Your task to perform on an android device: star an email in the gmail app Image 0: 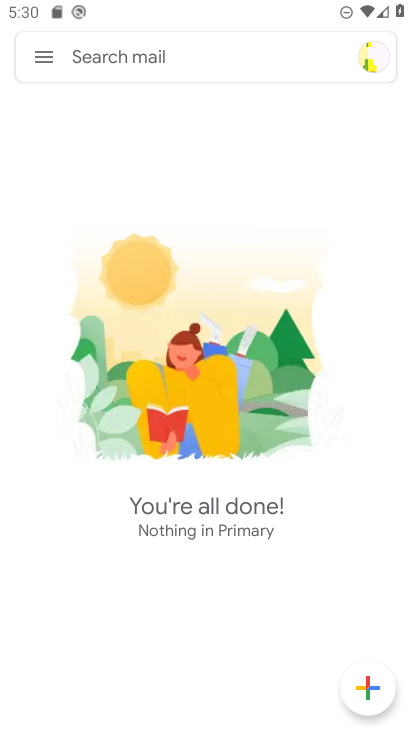
Step 0: press home button
Your task to perform on an android device: star an email in the gmail app Image 1: 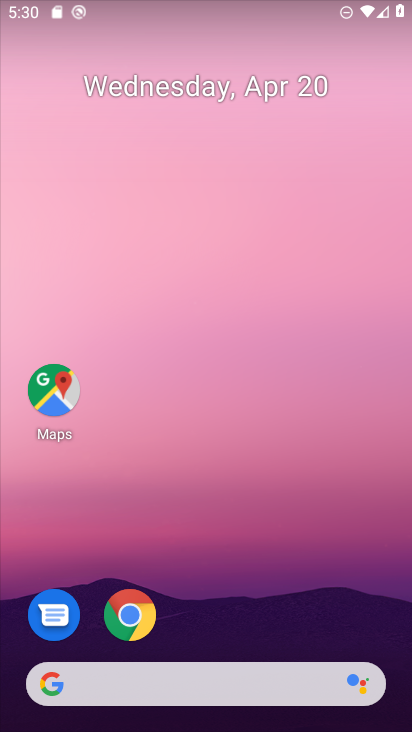
Step 1: drag from (259, 602) to (193, 40)
Your task to perform on an android device: star an email in the gmail app Image 2: 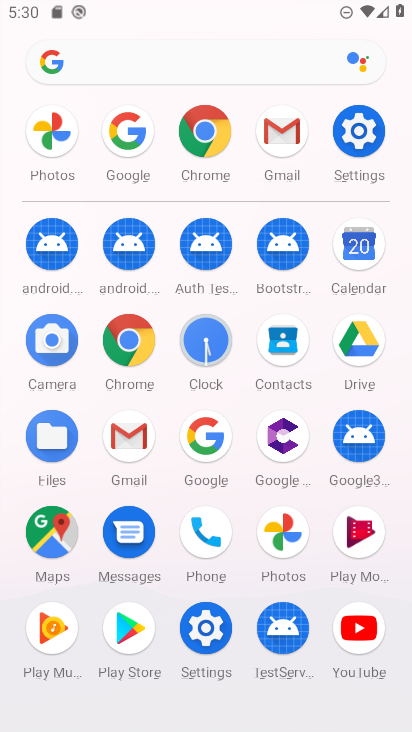
Step 2: click (276, 124)
Your task to perform on an android device: star an email in the gmail app Image 3: 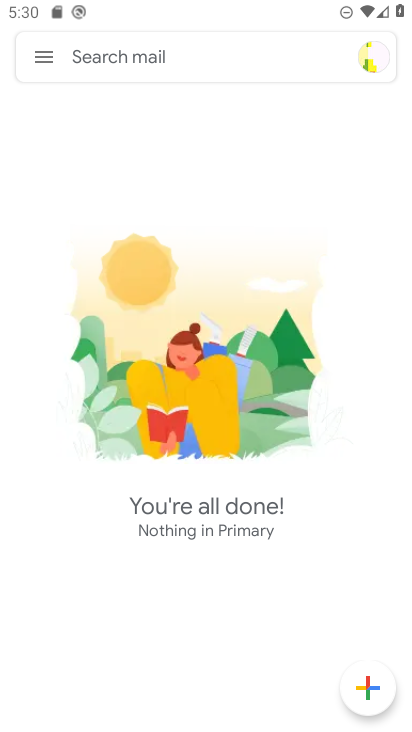
Step 3: click (42, 56)
Your task to perform on an android device: star an email in the gmail app Image 4: 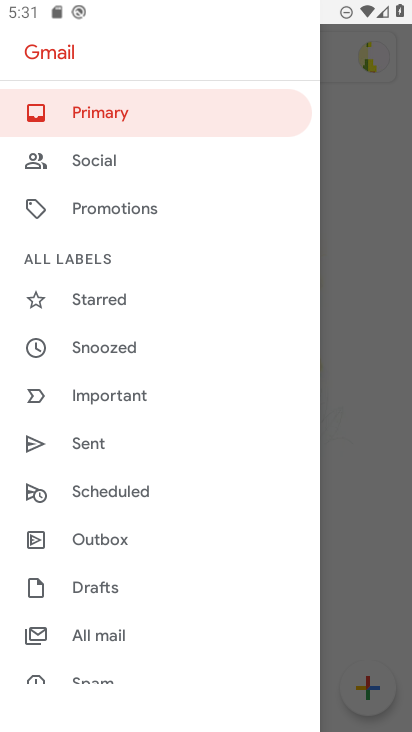
Step 4: click (127, 629)
Your task to perform on an android device: star an email in the gmail app Image 5: 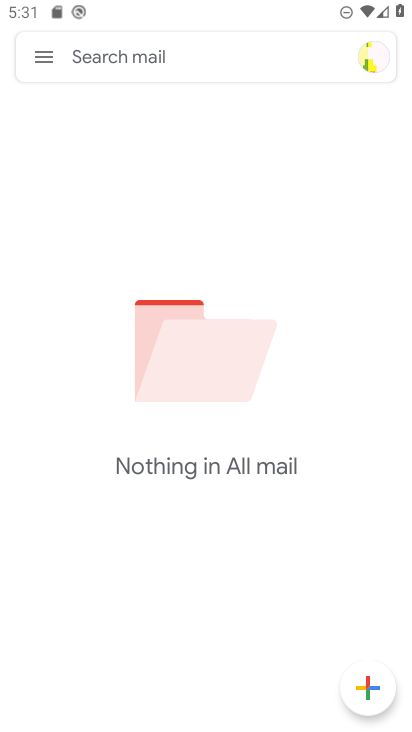
Step 5: task complete